Your task to perform on an android device: Show me popular games on the Play Store Image 0: 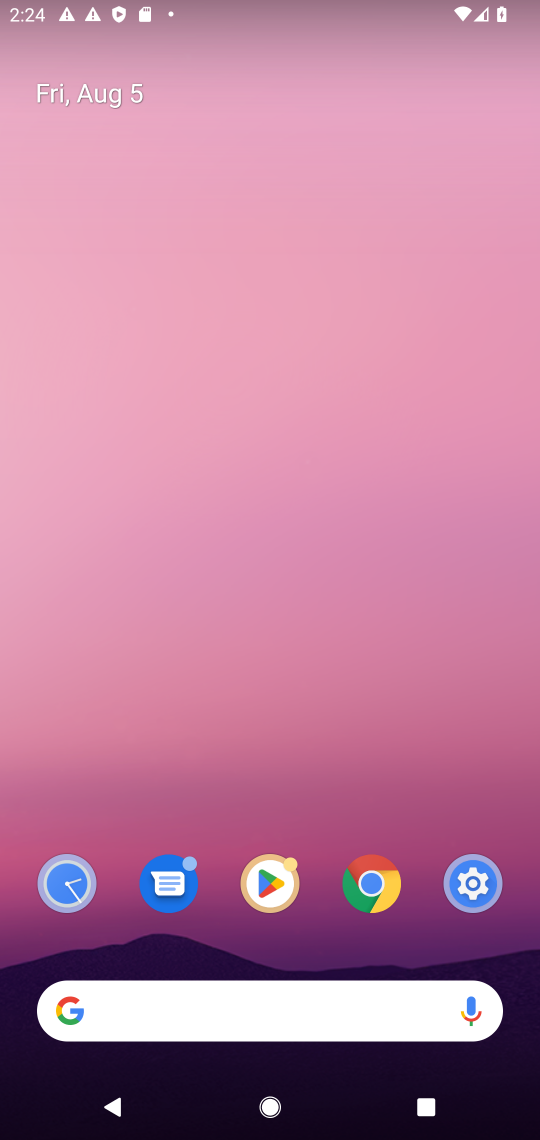
Step 0: click (257, 881)
Your task to perform on an android device: Show me popular games on the Play Store Image 1: 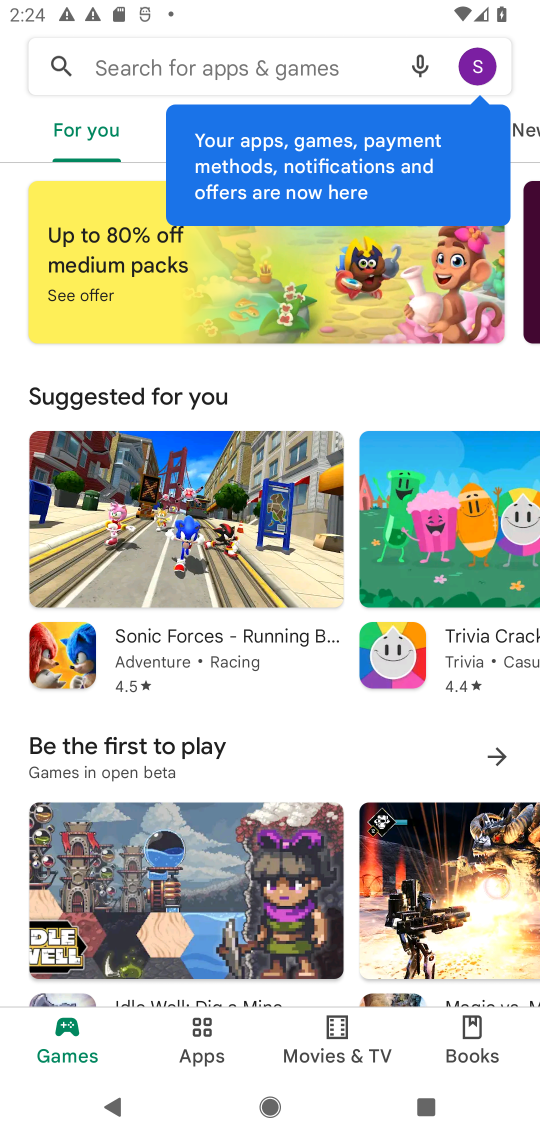
Step 1: task complete